Your task to perform on an android device: Go to privacy settings Image 0: 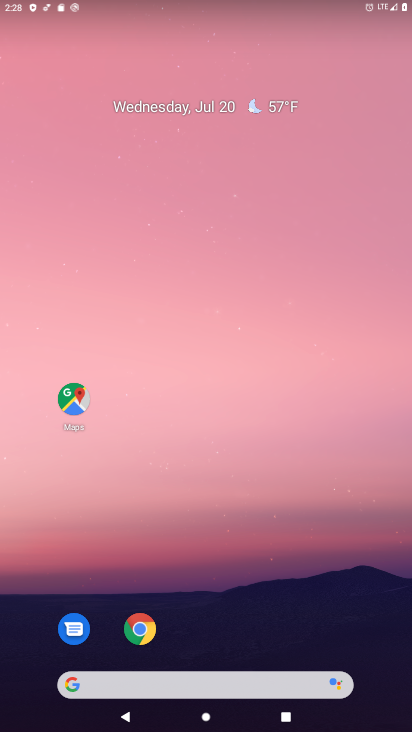
Step 0: drag from (395, 658) to (330, 71)
Your task to perform on an android device: Go to privacy settings Image 1: 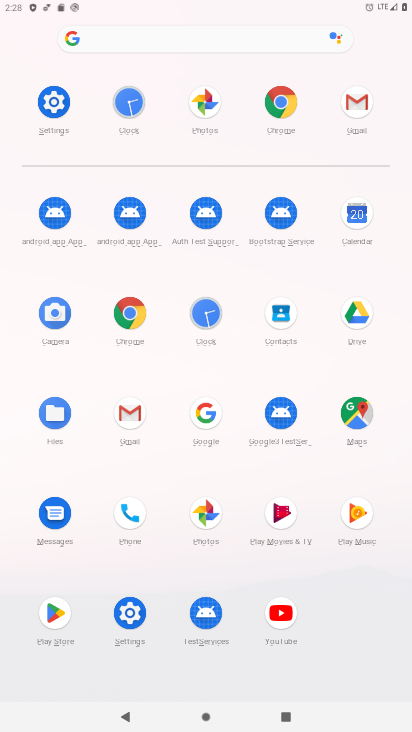
Step 1: click (128, 616)
Your task to perform on an android device: Go to privacy settings Image 2: 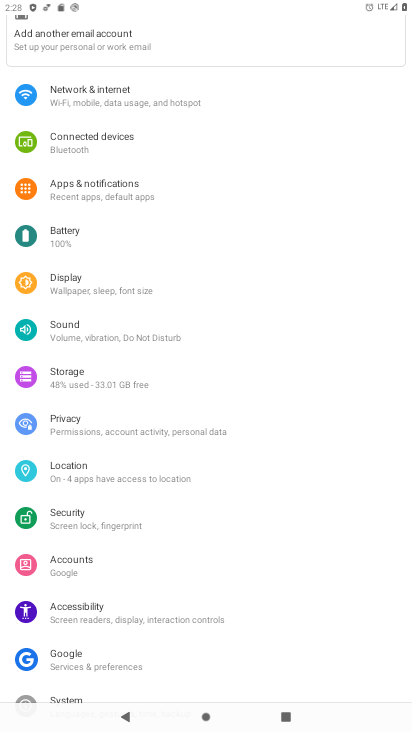
Step 2: click (67, 418)
Your task to perform on an android device: Go to privacy settings Image 3: 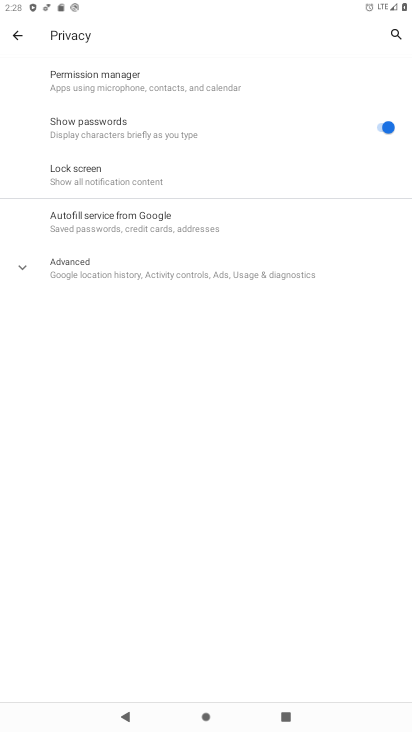
Step 3: click (21, 272)
Your task to perform on an android device: Go to privacy settings Image 4: 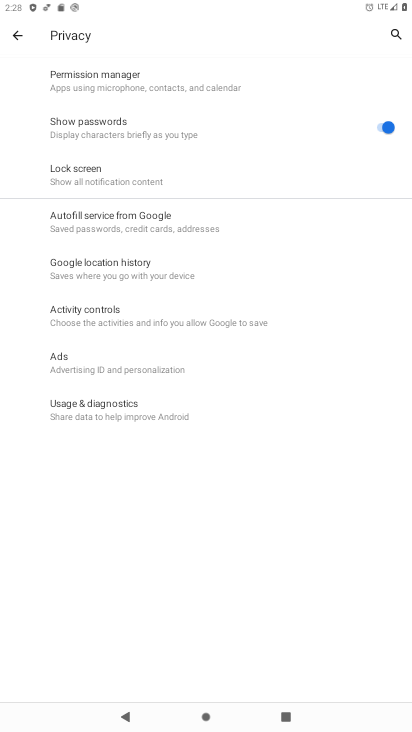
Step 4: task complete